Your task to perform on an android device: change notifications settings Image 0: 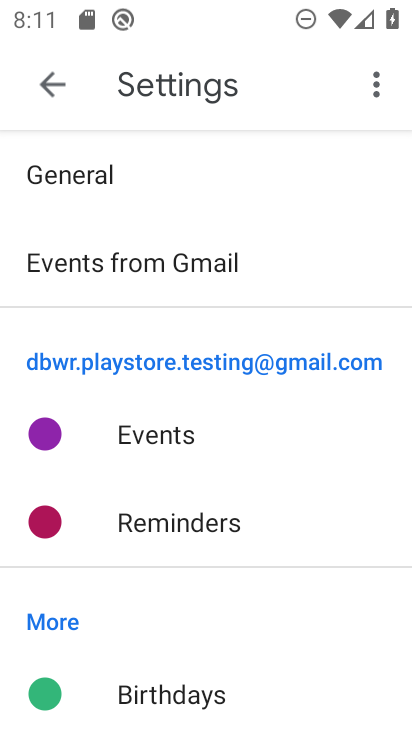
Step 0: press back button
Your task to perform on an android device: change notifications settings Image 1: 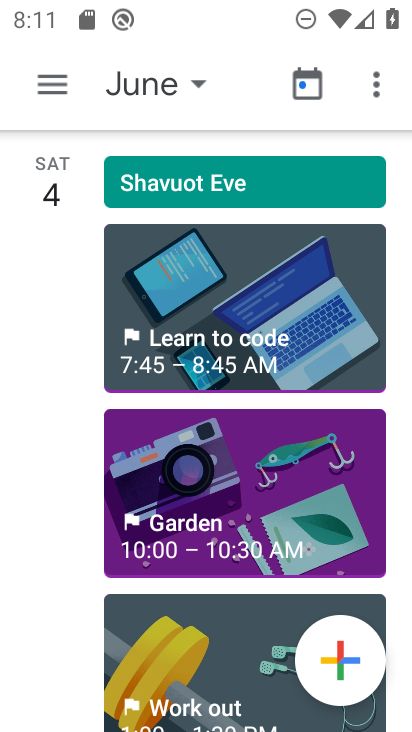
Step 1: press back button
Your task to perform on an android device: change notifications settings Image 2: 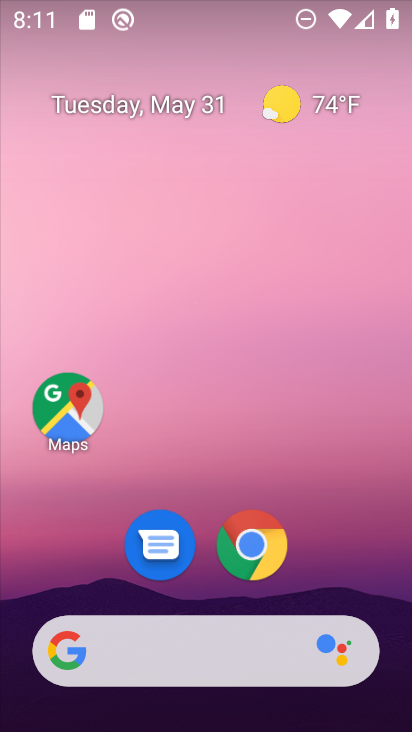
Step 2: drag from (342, 485) to (174, 3)
Your task to perform on an android device: change notifications settings Image 3: 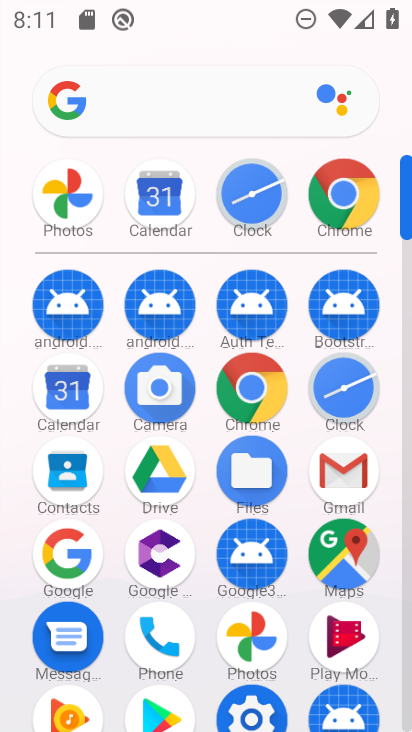
Step 3: drag from (8, 550) to (19, 246)
Your task to perform on an android device: change notifications settings Image 4: 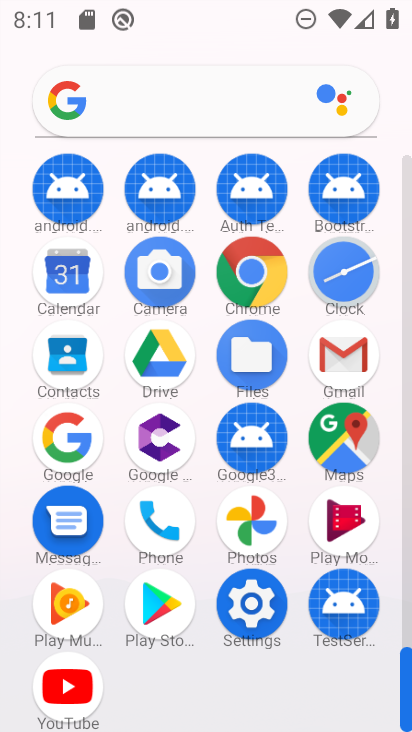
Step 4: click (250, 596)
Your task to perform on an android device: change notifications settings Image 5: 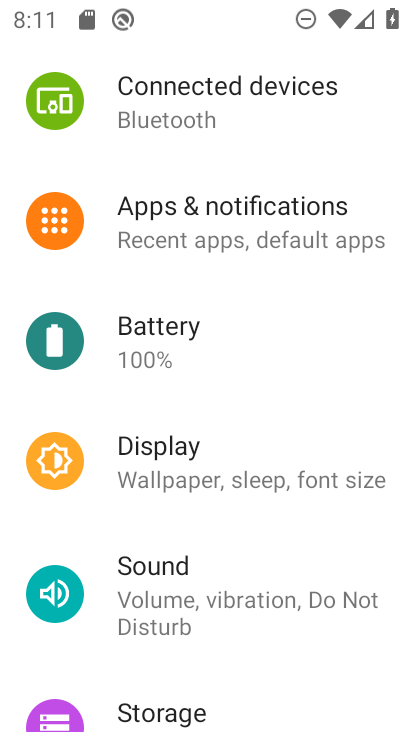
Step 5: click (265, 229)
Your task to perform on an android device: change notifications settings Image 6: 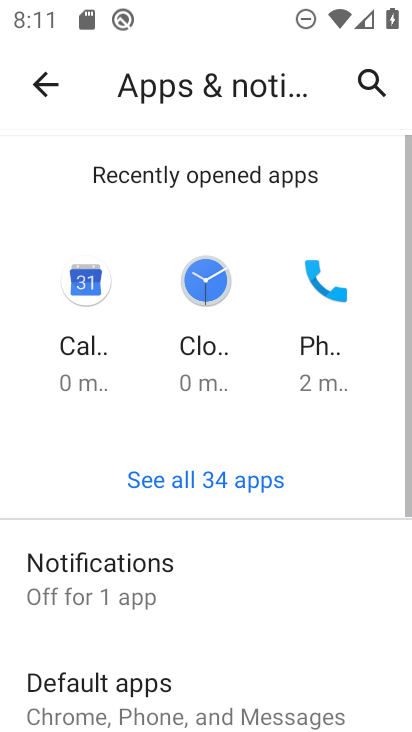
Step 6: drag from (303, 576) to (259, 195)
Your task to perform on an android device: change notifications settings Image 7: 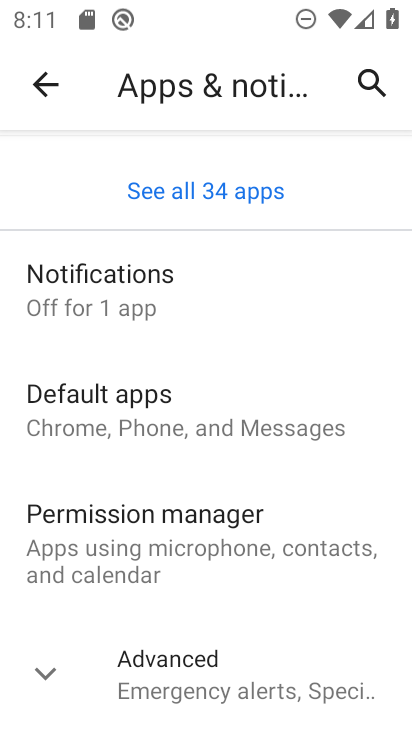
Step 7: click (189, 303)
Your task to perform on an android device: change notifications settings Image 8: 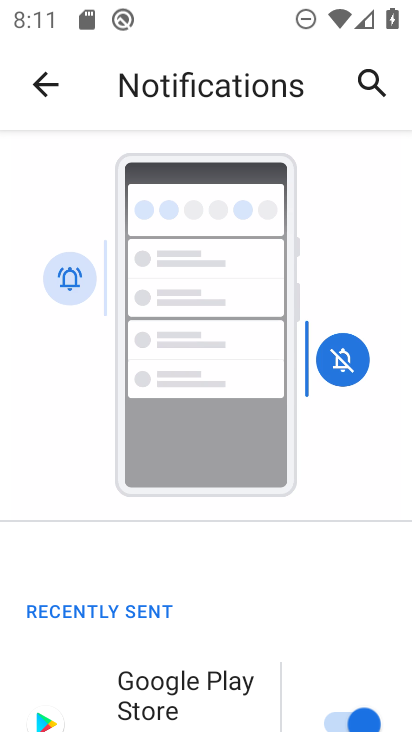
Step 8: drag from (203, 546) to (220, 121)
Your task to perform on an android device: change notifications settings Image 9: 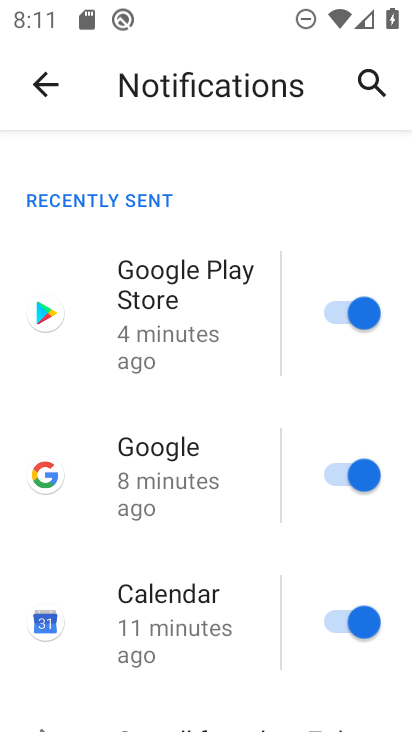
Step 9: drag from (228, 256) to (198, 593)
Your task to perform on an android device: change notifications settings Image 10: 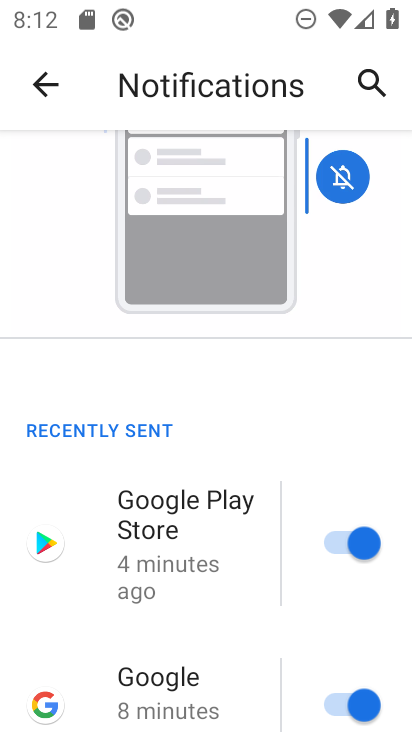
Step 10: drag from (229, 208) to (210, 645)
Your task to perform on an android device: change notifications settings Image 11: 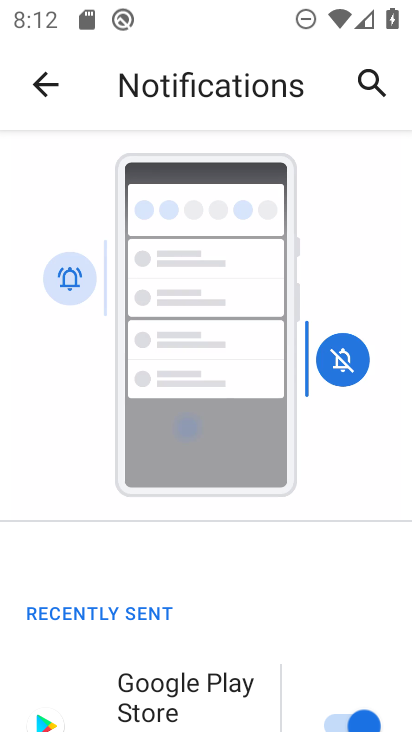
Step 11: drag from (249, 249) to (243, 512)
Your task to perform on an android device: change notifications settings Image 12: 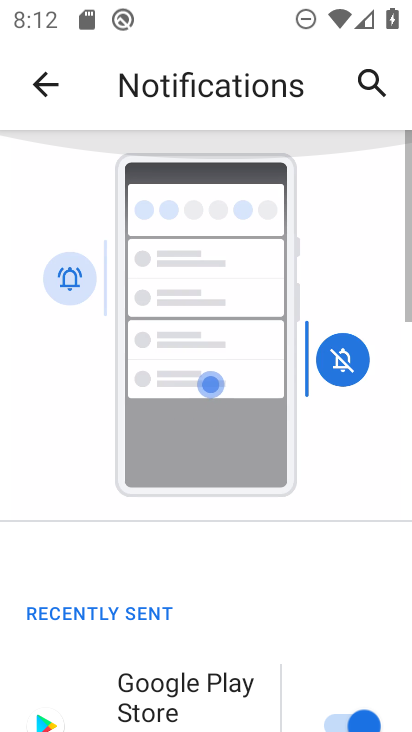
Step 12: drag from (212, 555) to (226, 122)
Your task to perform on an android device: change notifications settings Image 13: 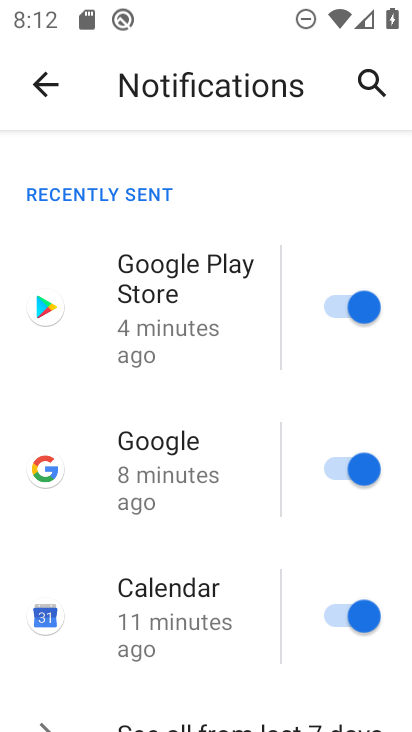
Step 13: drag from (180, 558) to (232, 131)
Your task to perform on an android device: change notifications settings Image 14: 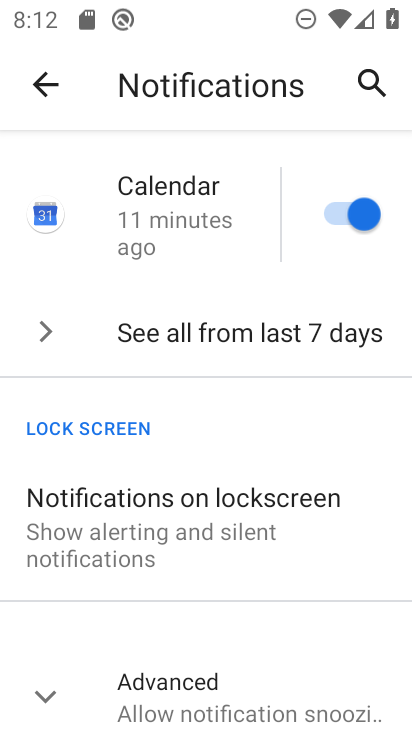
Step 14: drag from (239, 521) to (262, 179)
Your task to perform on an android device: change notifications settings Image 15: 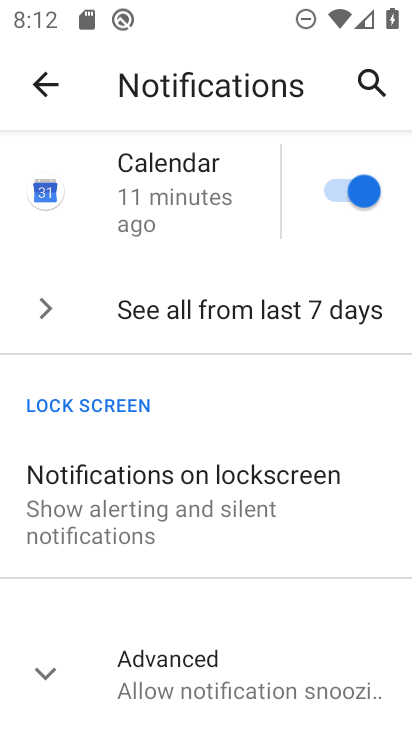
Step 15: click (72, 682)
Your task to perform on an android device: change notifications settings Image 16: 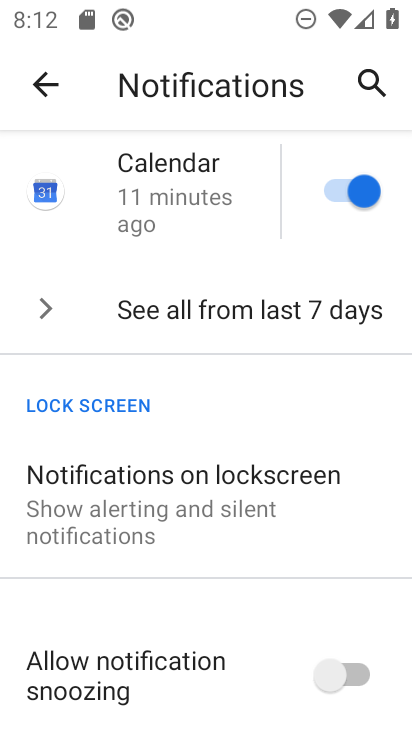
Step 16: drag from (254, 578) to (261, 236)
Your task to perform on an android device: change notifications settings Image 17: 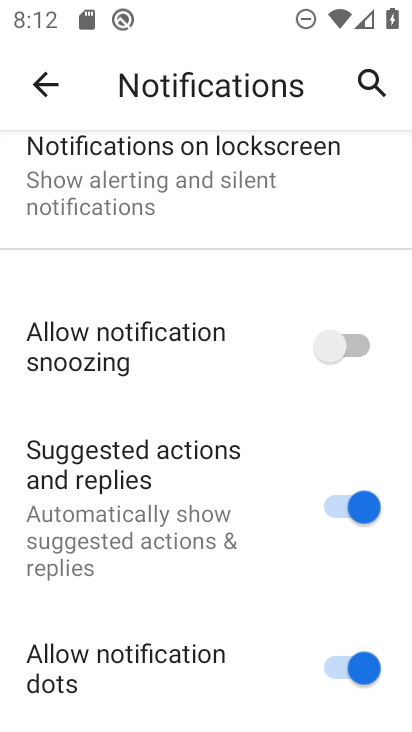
Step 17: click (240, 192)
Your task to perform on an android device: change notifications settings Image 18: 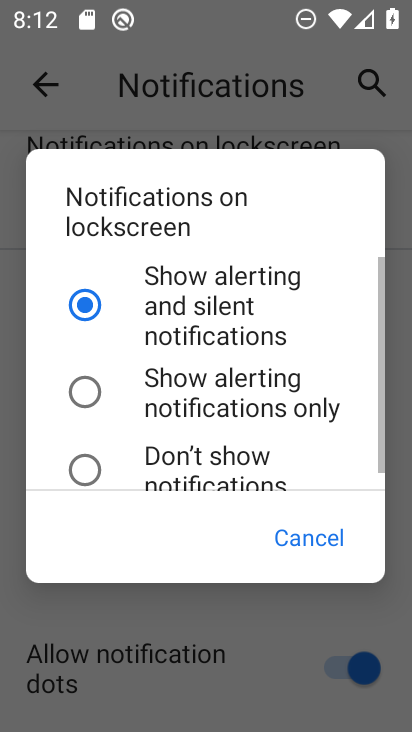
Step 18: click (181, 373)
Your task to perform on an android device: change notifications settings Image 19: 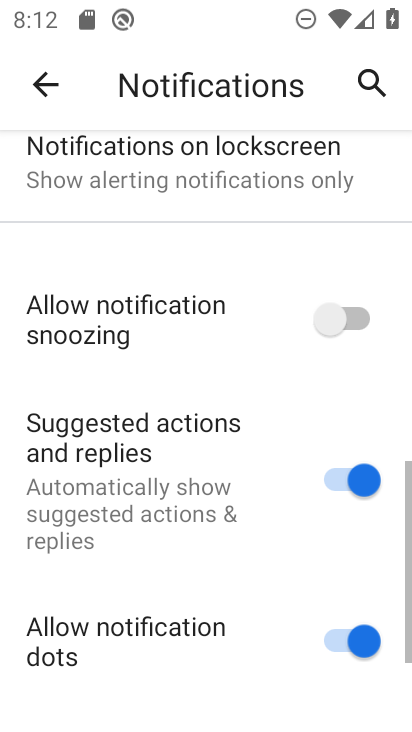
Step 19: task complete